Your task to perform on an android device: clear history in the chrome app Image 0: 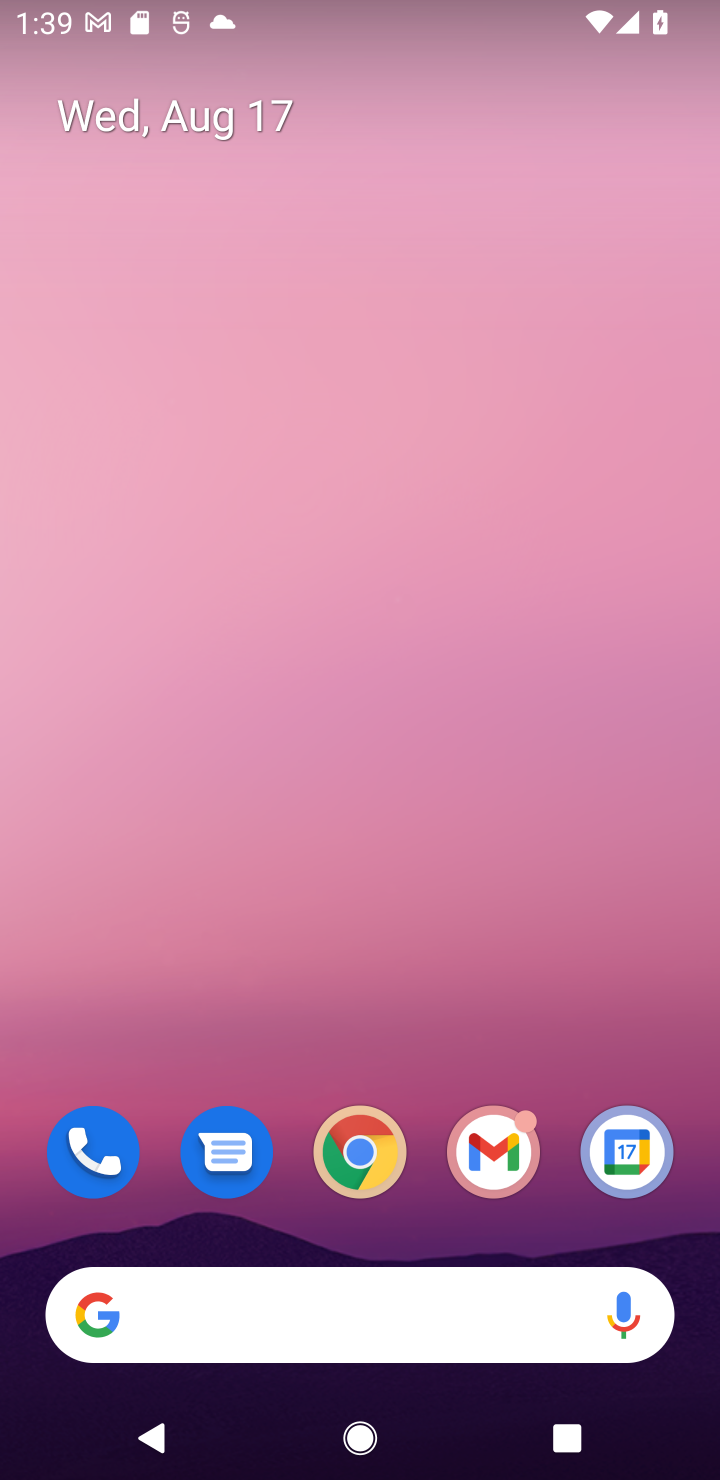
Step 0: drag from (688, 862) to (502, 34)
Your task to perform on an android device: clear history in the chrome app Image 1: 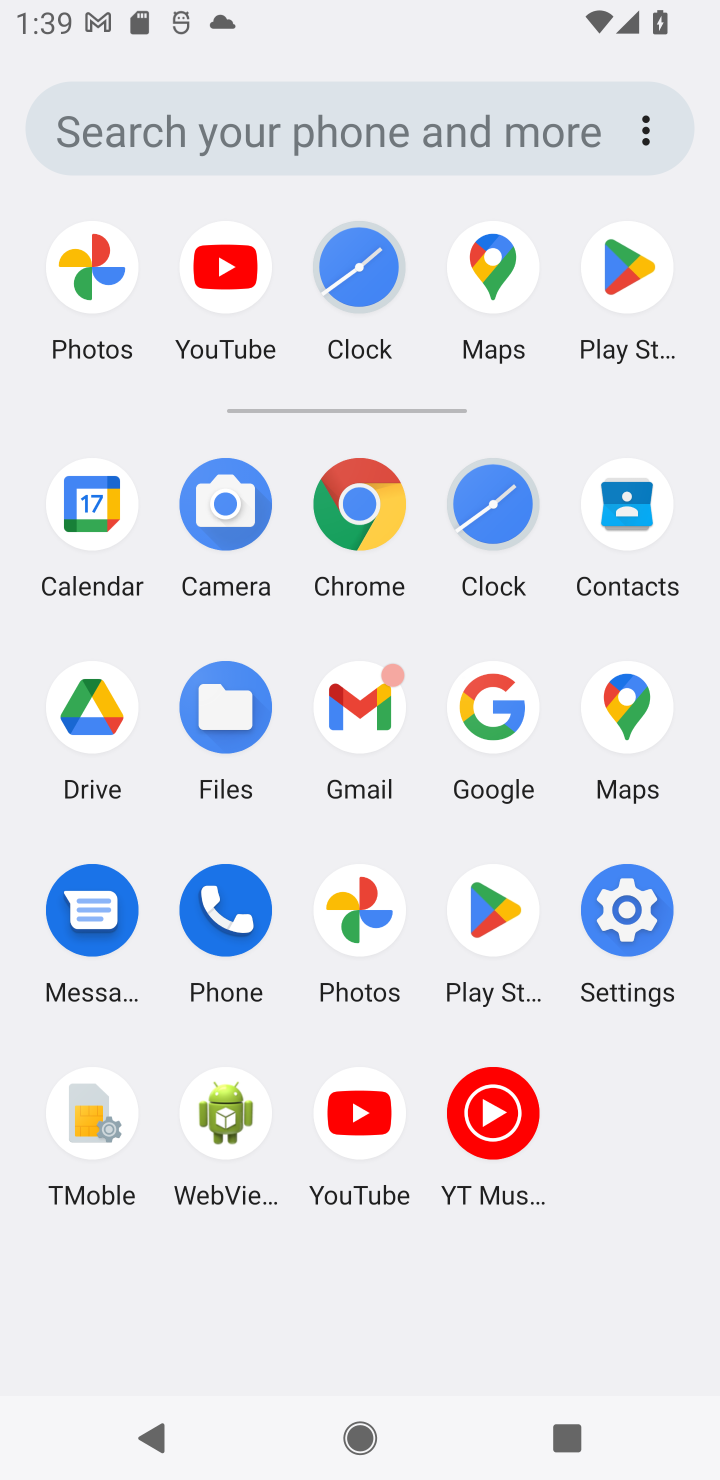
Step 1: click (371, 513)
Your task to perform on an android device: clear history in the chrome app Image 2: 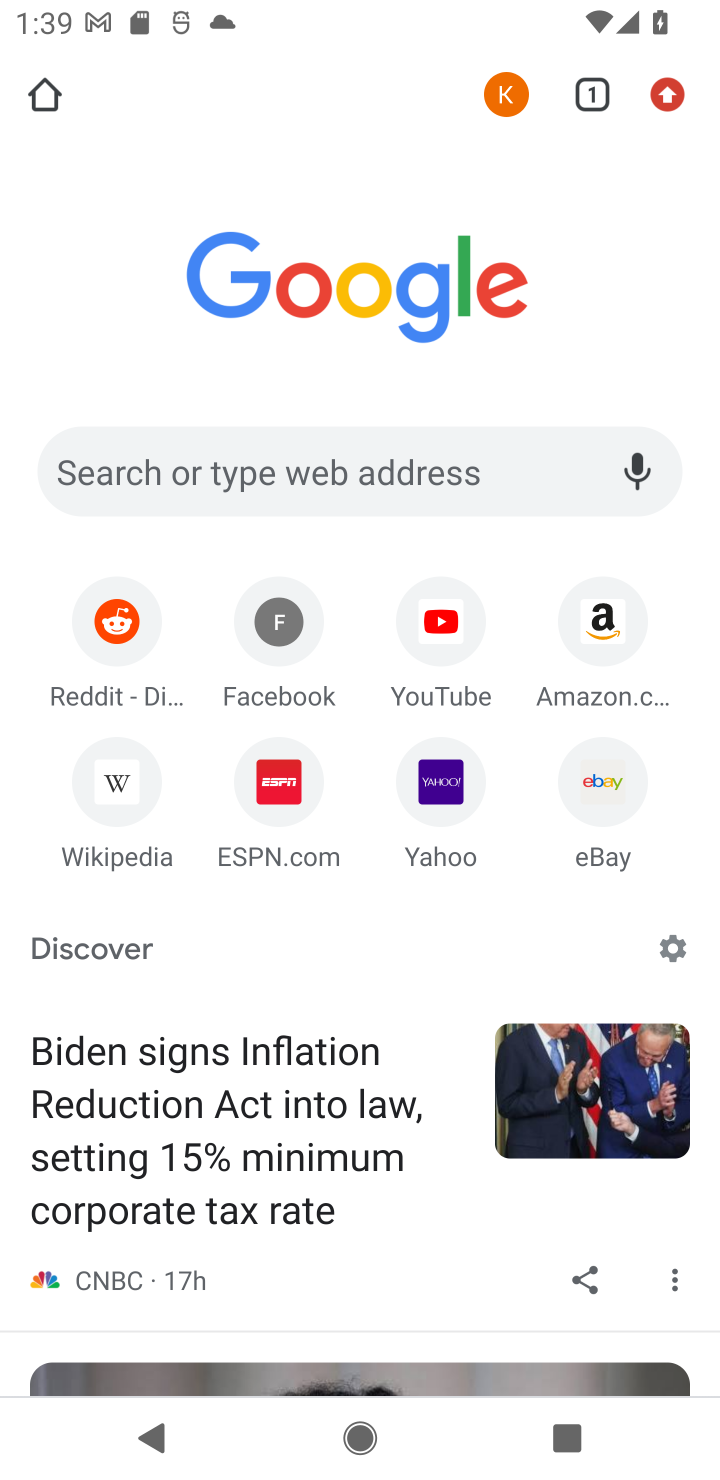
Step 2: click (669, 94)
Your task to perform on an android device: clear history in the chrome app Image 3: 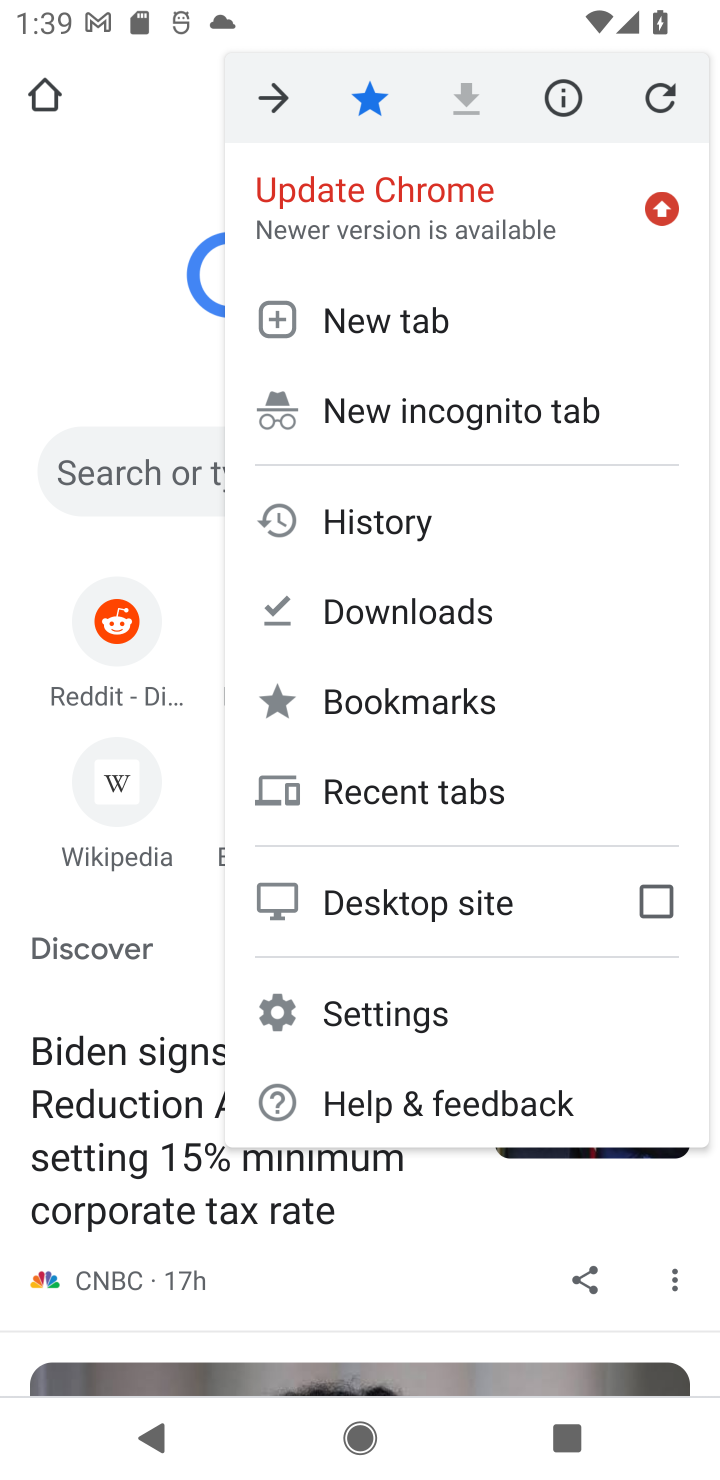
Step 3: click (409, 522)
Your task to perform on an android device: clear history in the chrome app Image 4: 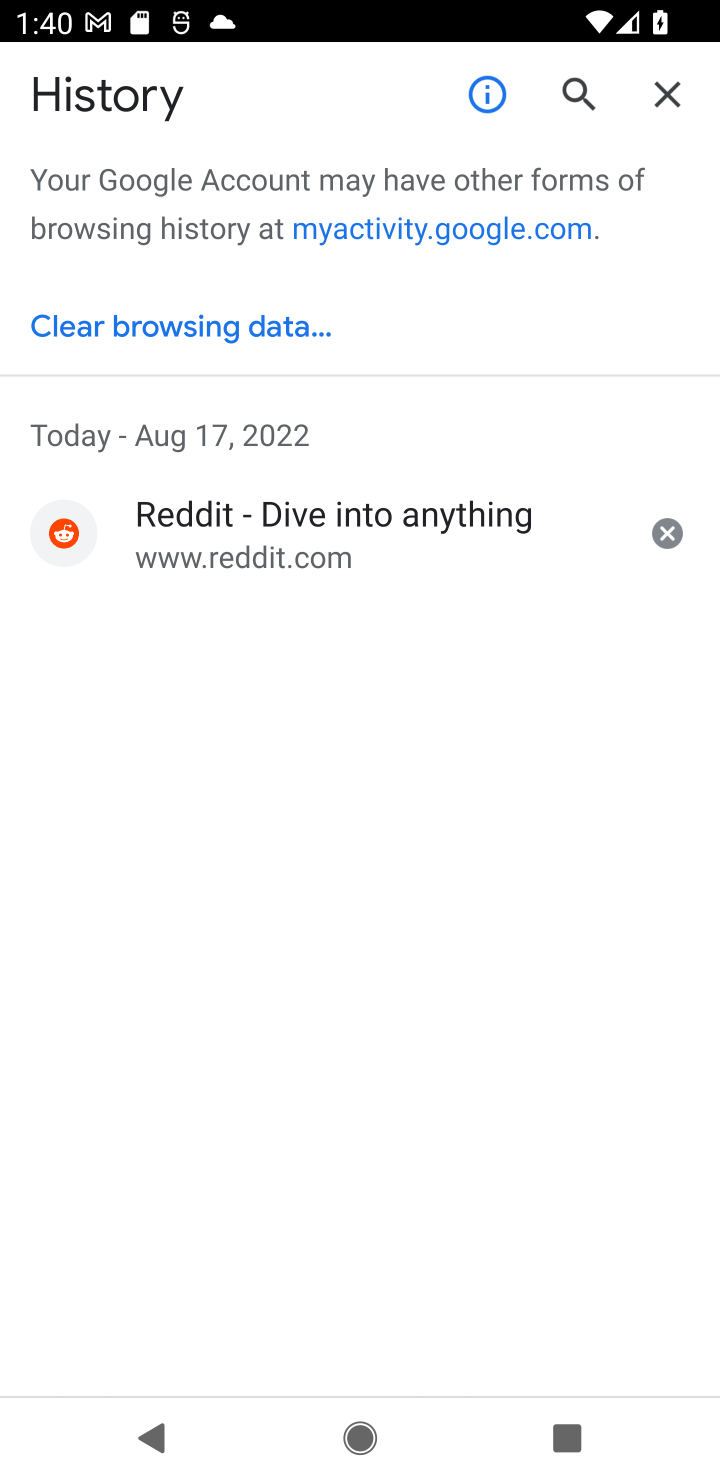
Step 4: click (148, 334)
Your task to perform on an android device: clear history in the chrome app Image 5: 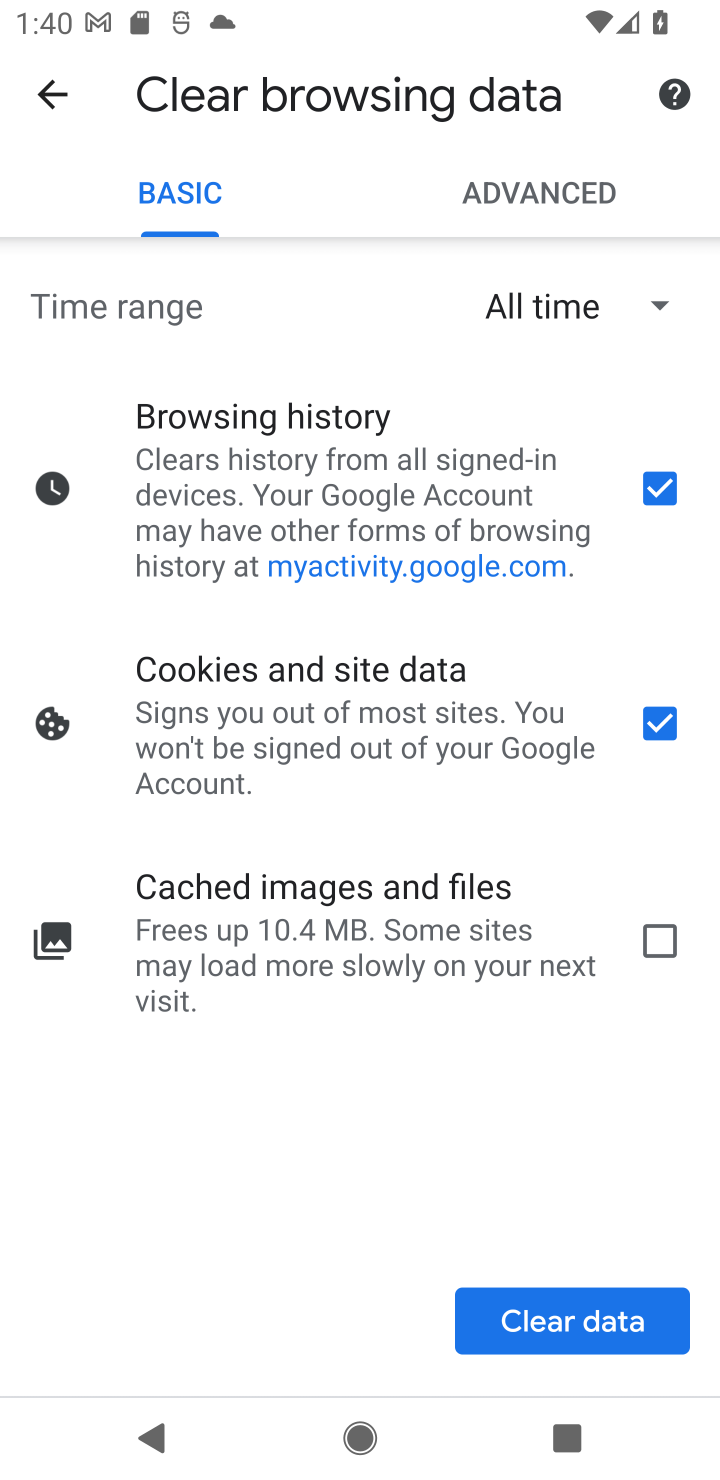
Step 5: click (608, 1292)
Your task to perform on an android device: clear history in the chrome app Image 6: 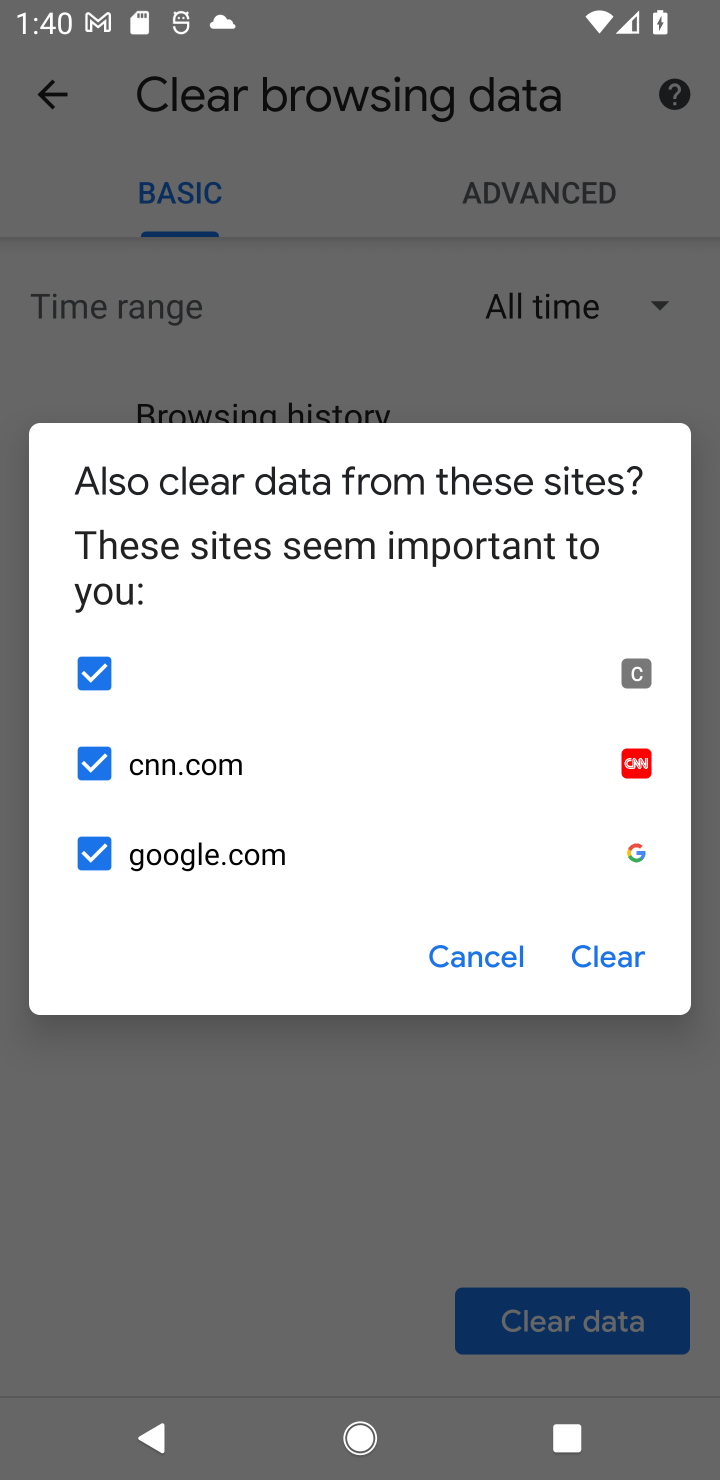
Step 6: click (575, 946)
Your task to perform on an android device: clear history in the chrome app Image 7: 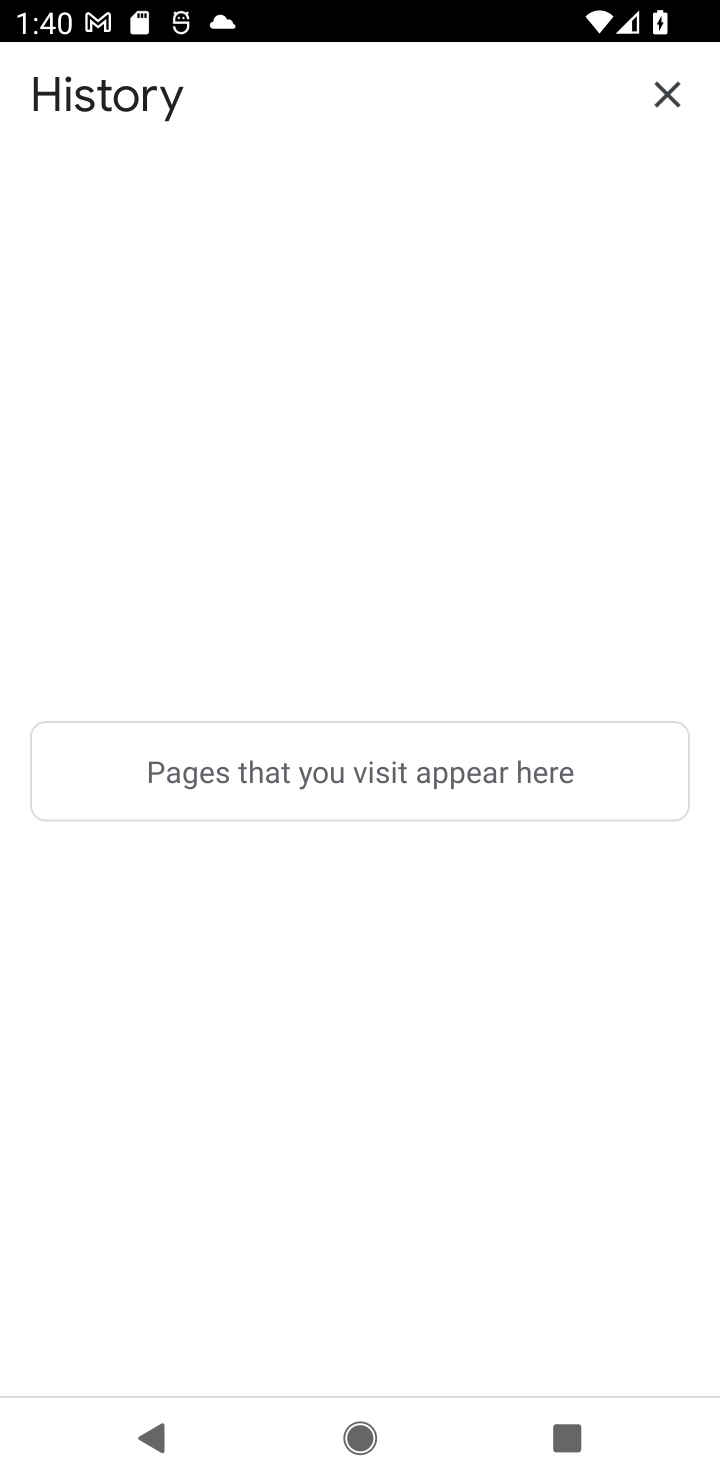
Step 7: task complete